Your task to perform on an android device: allow cookies in the chrome app Image 0: 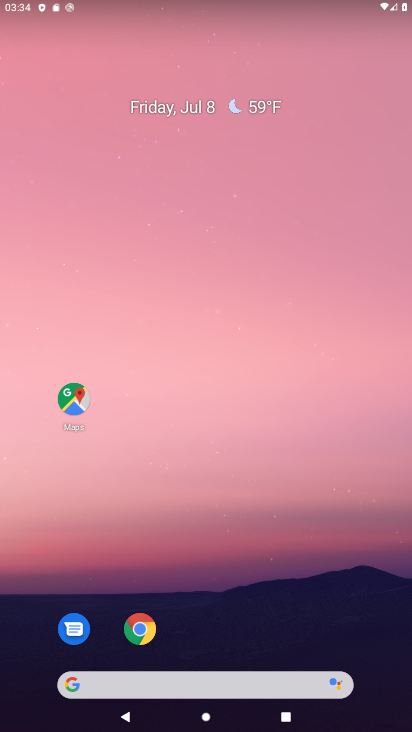
Step 0: press home button
Your task to perform on an android device: allow cookies in the chrome app Image 1: 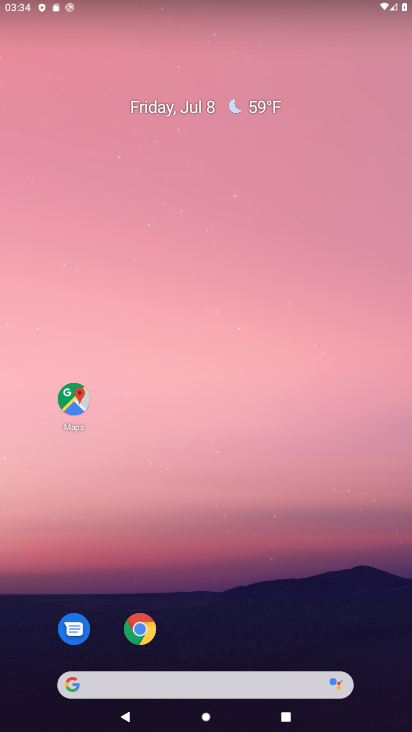
Step 1: click (140, 622)
Your task to perform on an android device: allow cookies in the chrome app Image 2: 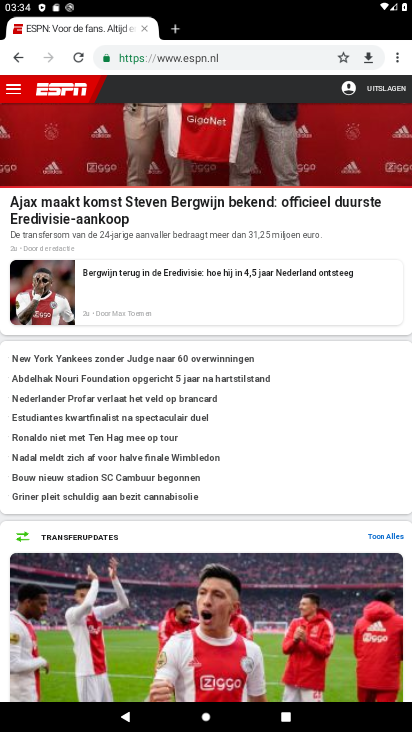
Step 2: click (392, 55)
Your task to perform on an android device: allow cookies in the chrome app Image 3: 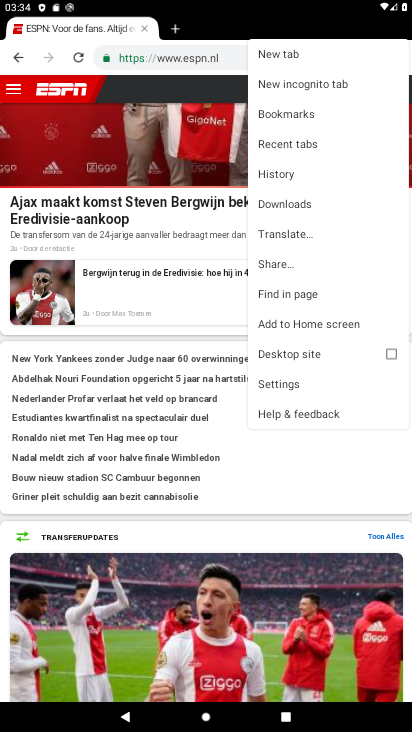
Step 3: click (289, 380)
Your task to perform on an android device: allow cookies in the chrome app Image 4: 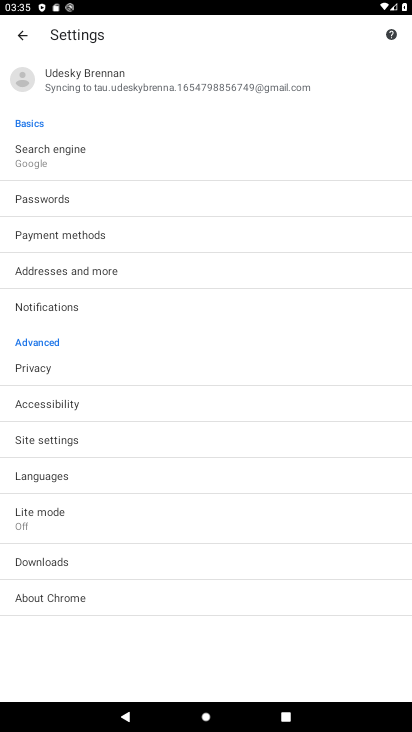
Step 4: click (100, 440)
Your task to perform on an android device: allow cookies in the chrome app Image 5: 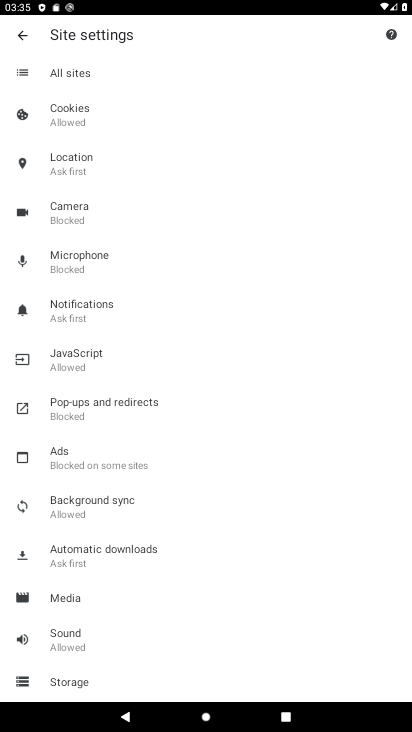
Step 5: click (103, 112)
Your task to perform on an android device: allow cookies in the chrome app Image 6: 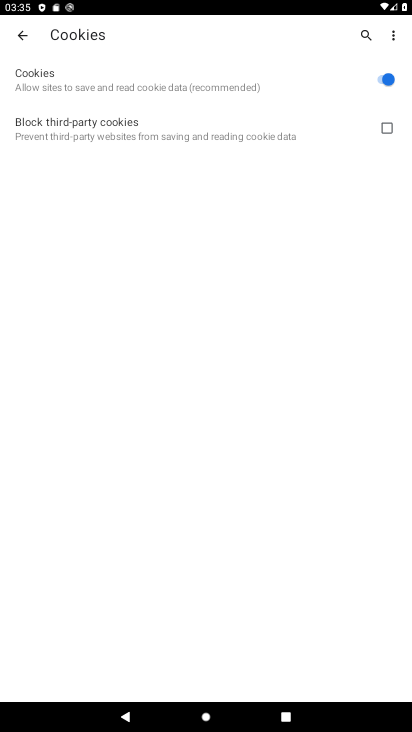
Step 6: task complete